Your task to perform on an android device: empty trash in google photos Image 0: 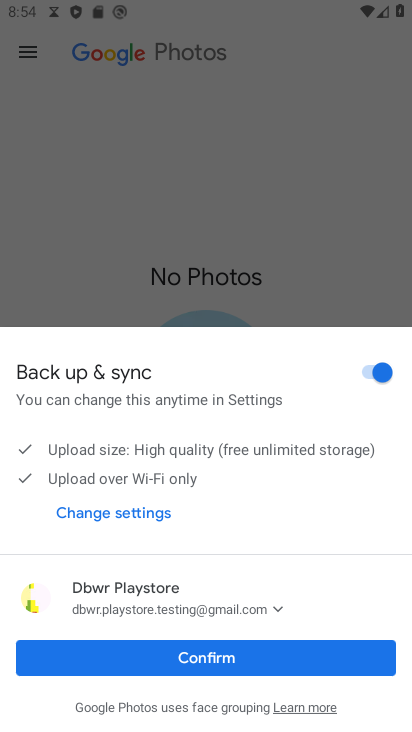
Step 0: press home button
Your task to perform on an android device: empty trash in google photos Image 1: 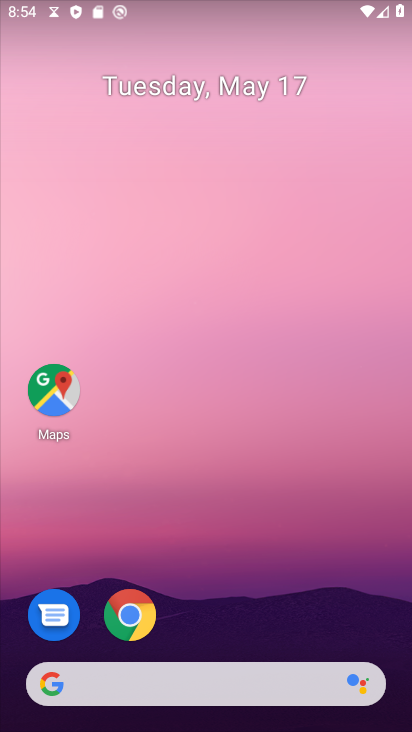
Step 1: drag from (221, 633) to (343, 82)
Your task to perform on an android device: empty trash in google photos Image 2: 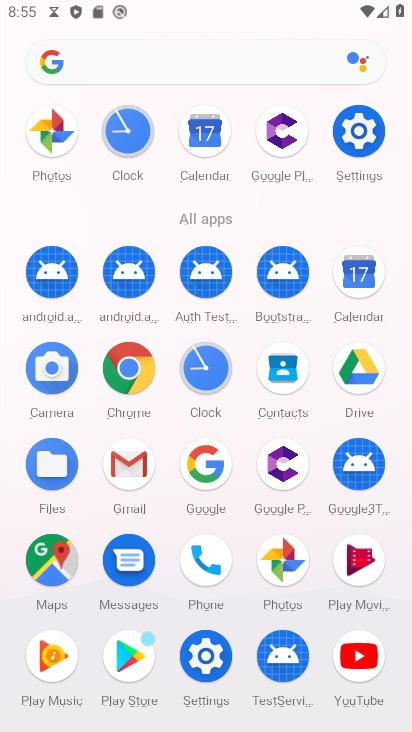
Step 2: click (286, 570)
Your task to perform on an android device: empty trash in google photos Image 3: 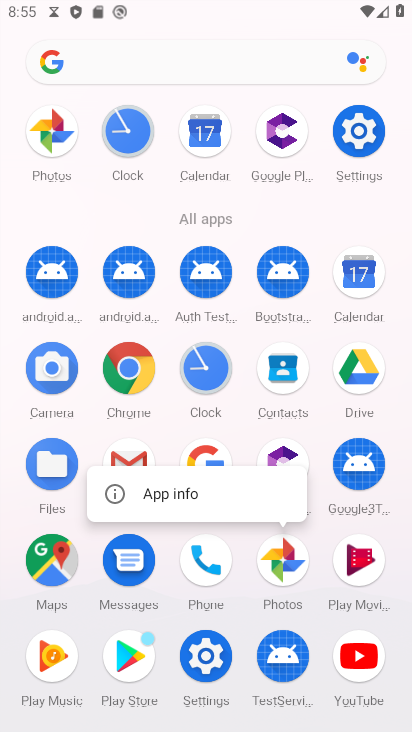
Step 3: click (285, 569)
Your task to perform on an android device: empty trash in google photos Image 4: 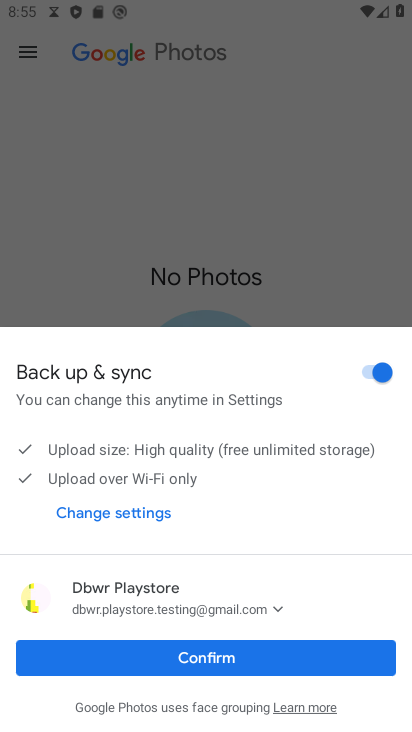
Step 4: click (221, 660)
Your task to perform on an android device: empty trash in google photos Image 5: 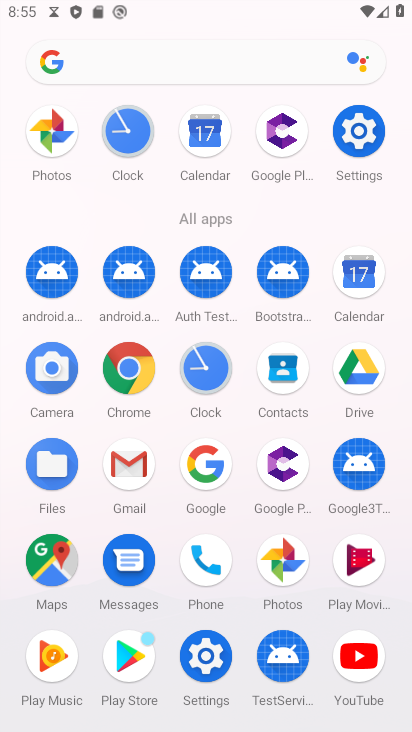
Step 5: click (284, 550)
Your task to perform on an android device: empty trash in google photos Image 6: 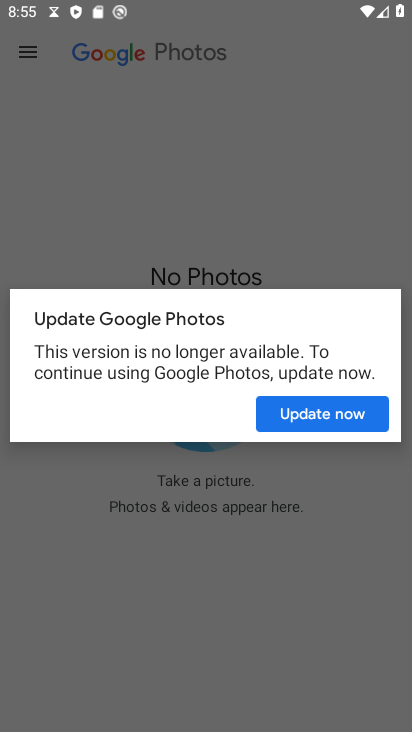
Step 6: click (330, 432)
Your task to perform on an android device: empty trash in google photos Image 7: 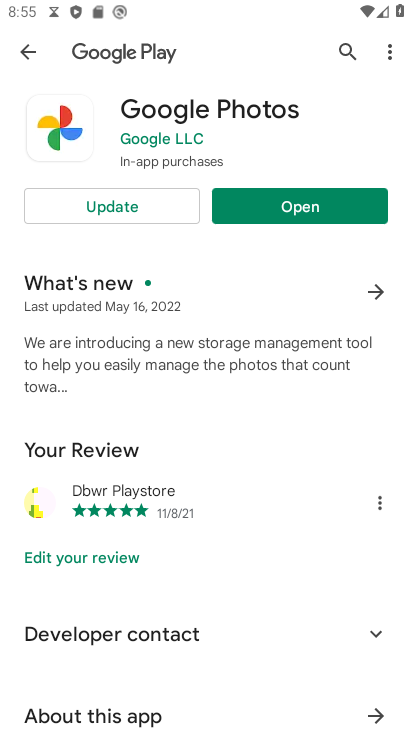
Step 7: click (145, 210)
Your task to perform on an android device: empty trash in google photos Image 8: 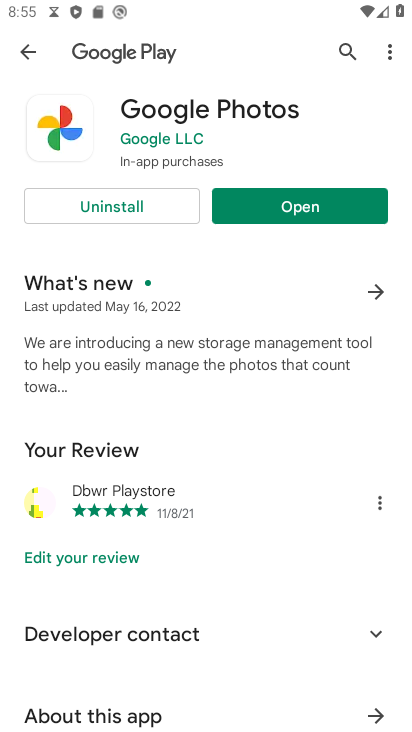
Step 8: click (319, 218)
Your task to perform on an android device: empty trash in google photos Image 9: 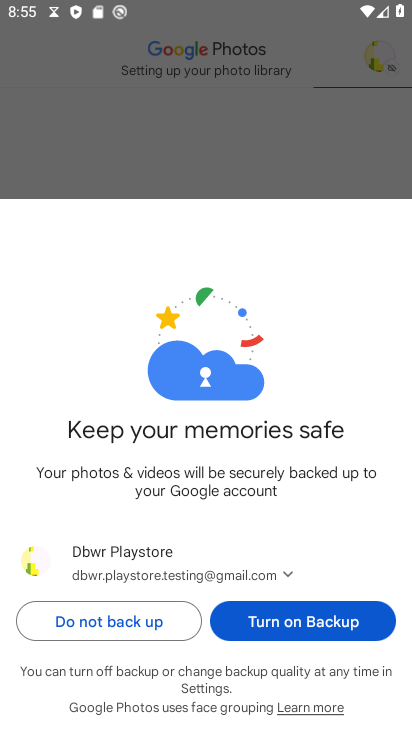
Step 9: click (319, 621)
Your task to perform on an android device: empty trash in google photos Image 10: 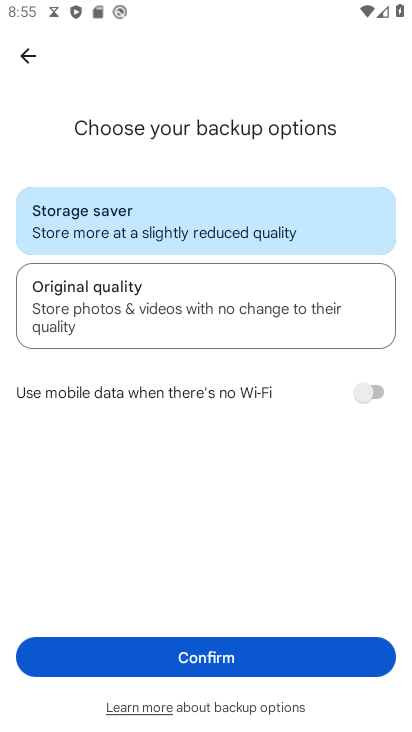
Step 10: click (273, 648)
Your task to perform on an android device: empty trash in google photos Image 11: 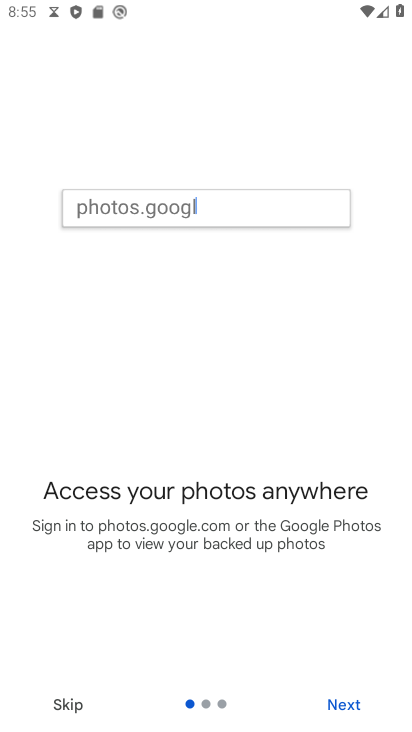
Step 11: click (348, 699)
Your task to perform on an android device: empty trash in google photos Image 12: 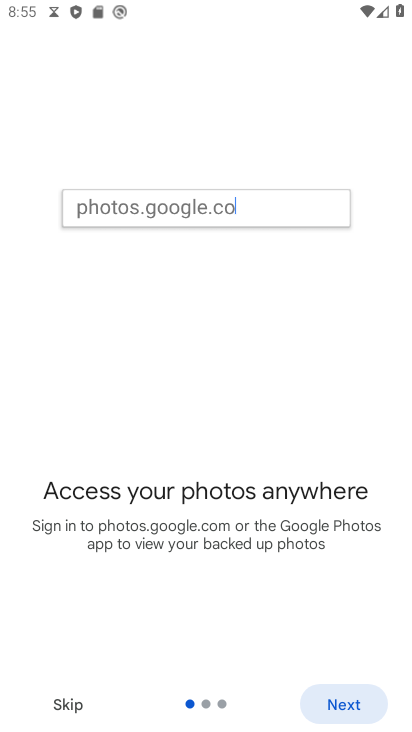
Step 12: click (345, 695)
Your task to perform on an android device: empty trash in google photos Image 13: 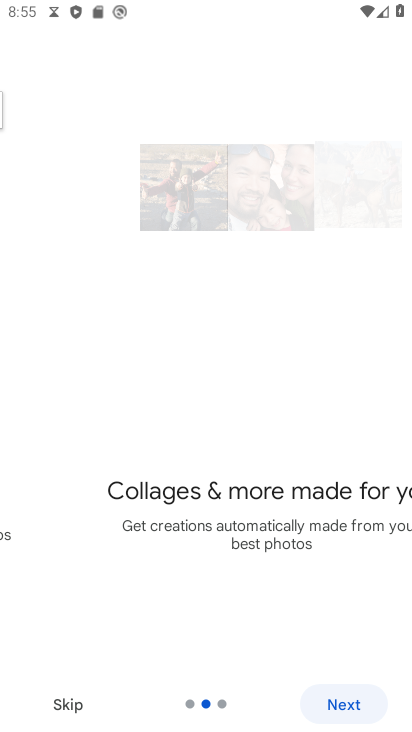
Step 13: click (345, 695)
Your task to perform on an android device: empty trash in google photos Image 14: 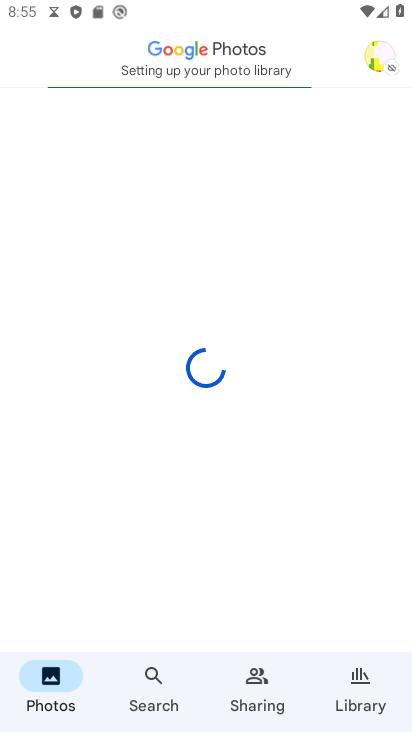
Step 14: click (345, 695)
Your task to perform on an android device: empty trash in google photos Image 15: 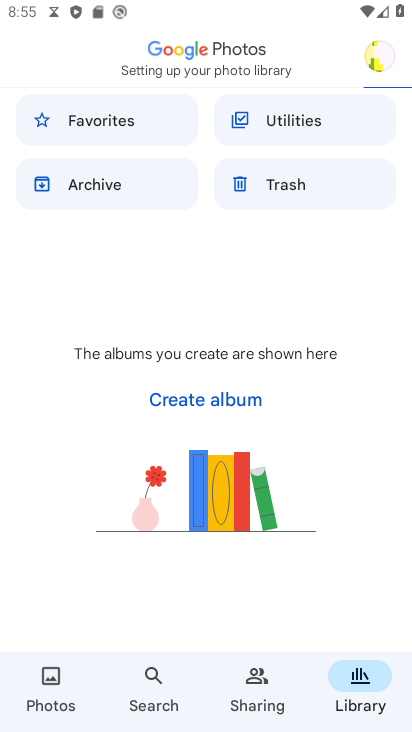
Step 15: click (336, 184)
Your task to perform on an android device: empty trash in google photos Image 16: 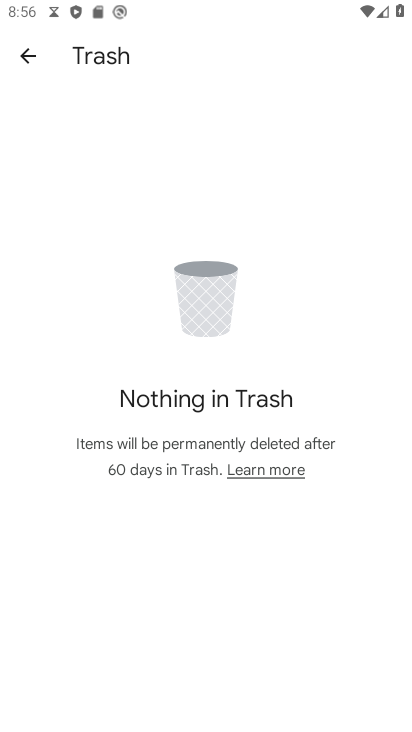
Step 16: task complete